Your task to perform on an android device: empty trash in the gmail app Image 0: 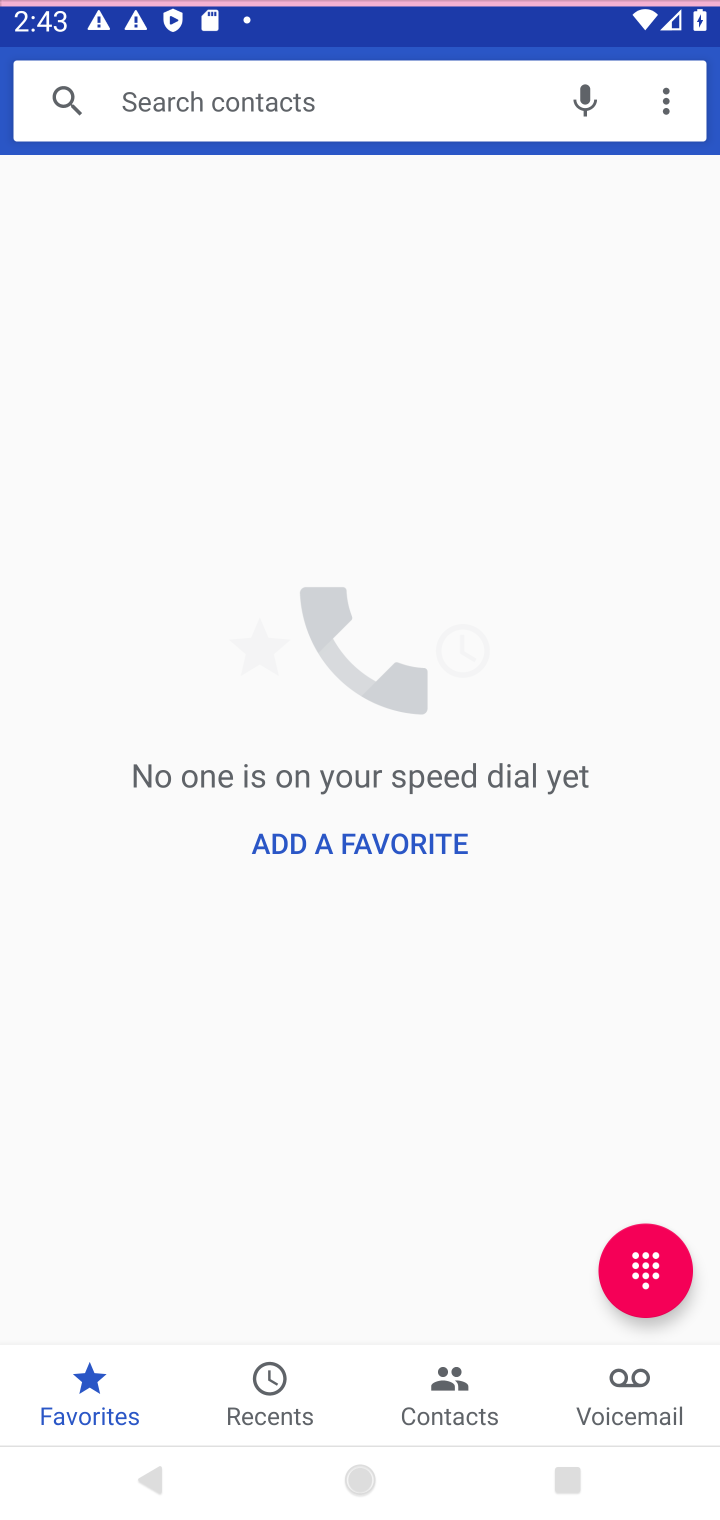
Step 0: press back button
Your task to perform on an android device: empty trash in the gmail app Image 1: 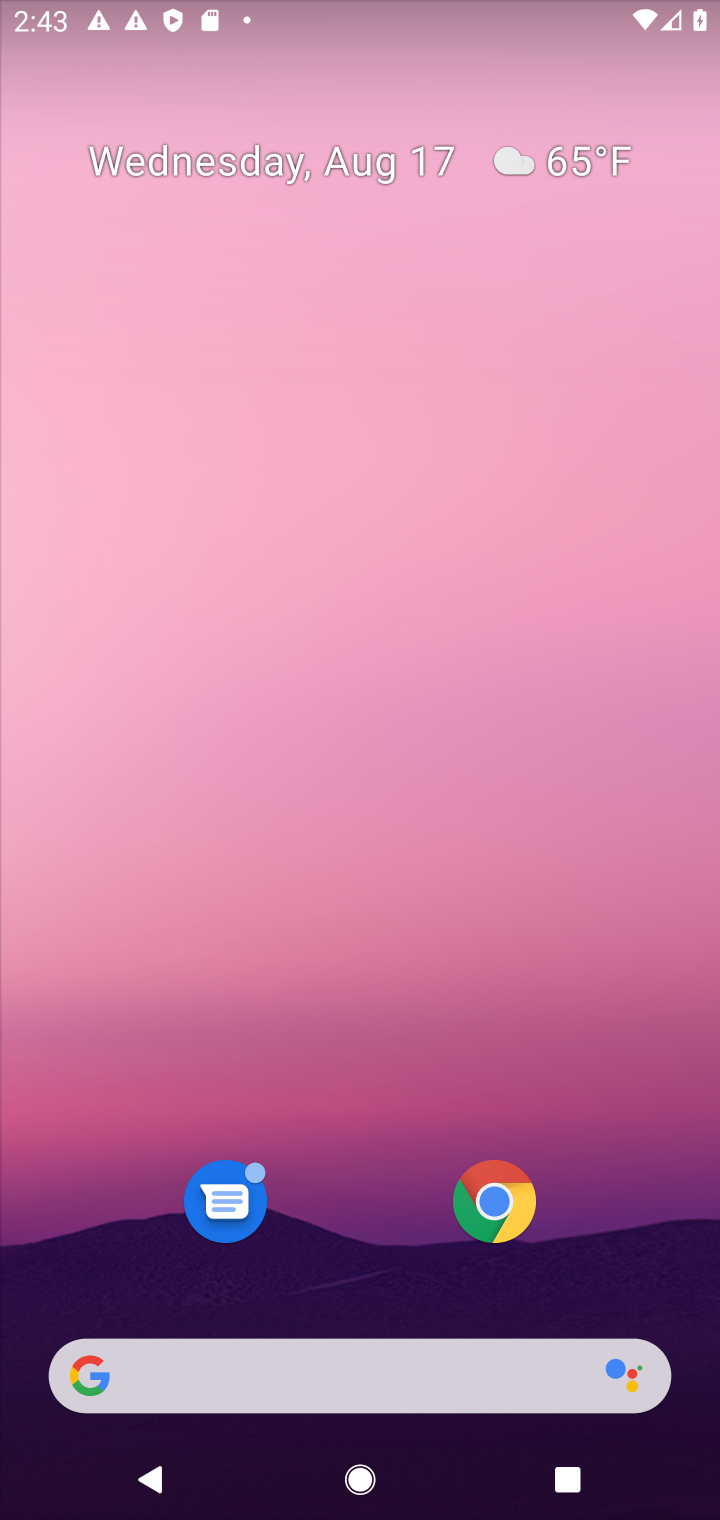
Step 1: press back button
Your task to perform on an android device: empty trash in the gmail app Image 2: 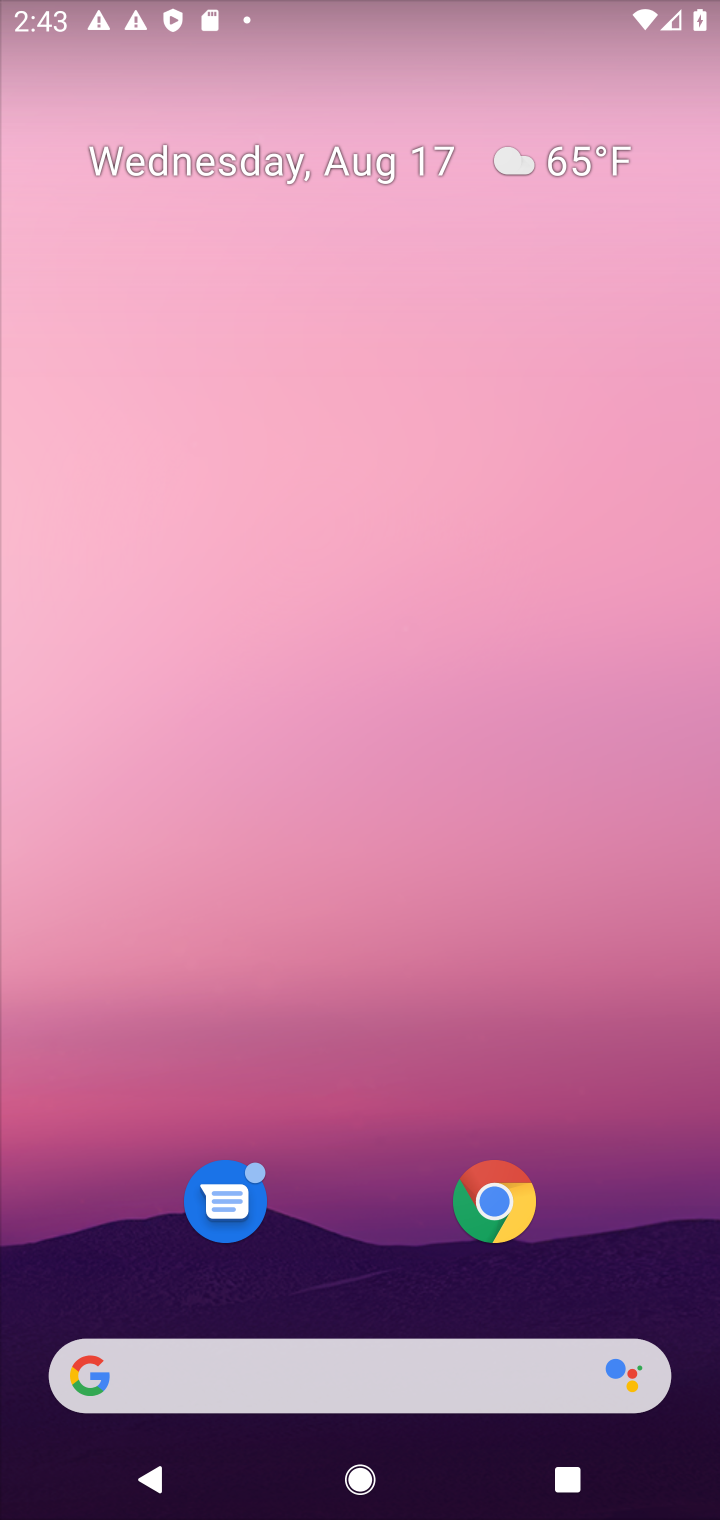
Step 2: drag from (437, 734) to (491, 8)
Your task to perform on an android device: empty trash in the gmail app Image 3: 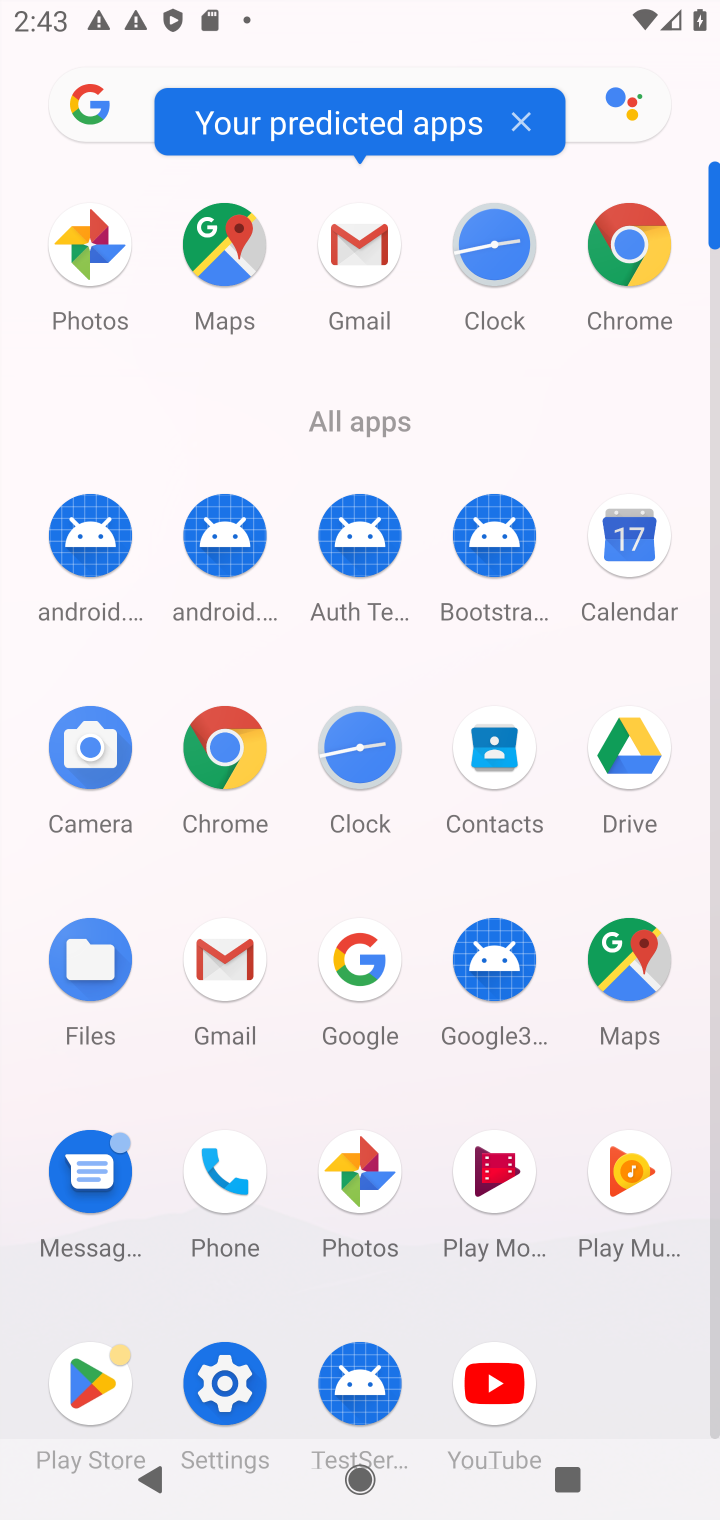
Step 3: click (384, 256)
Your task to perform on an android device: empty trash in the gmail app Image 4: 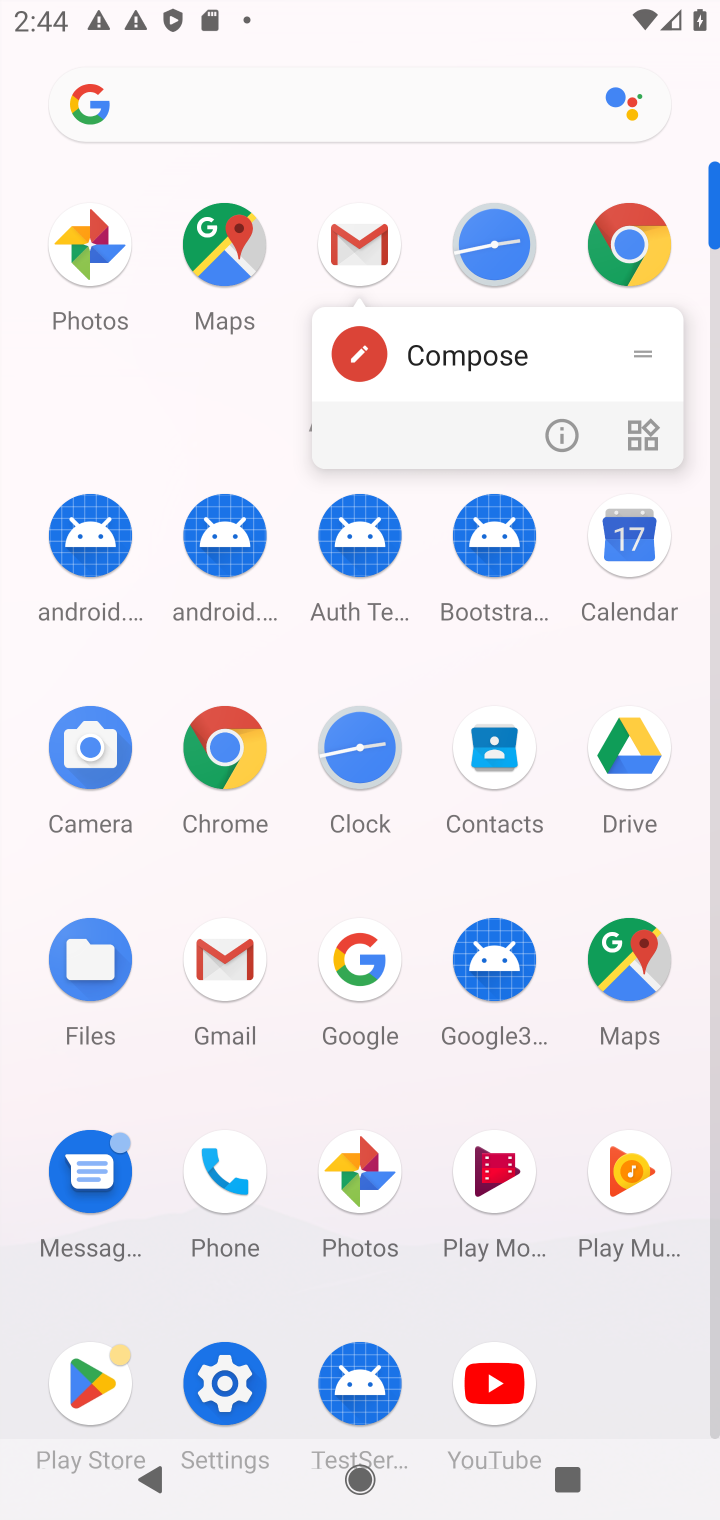
Step 4: click (350, 234)
Your task to perform on an android device: empty trash in the gmail app Image 5: 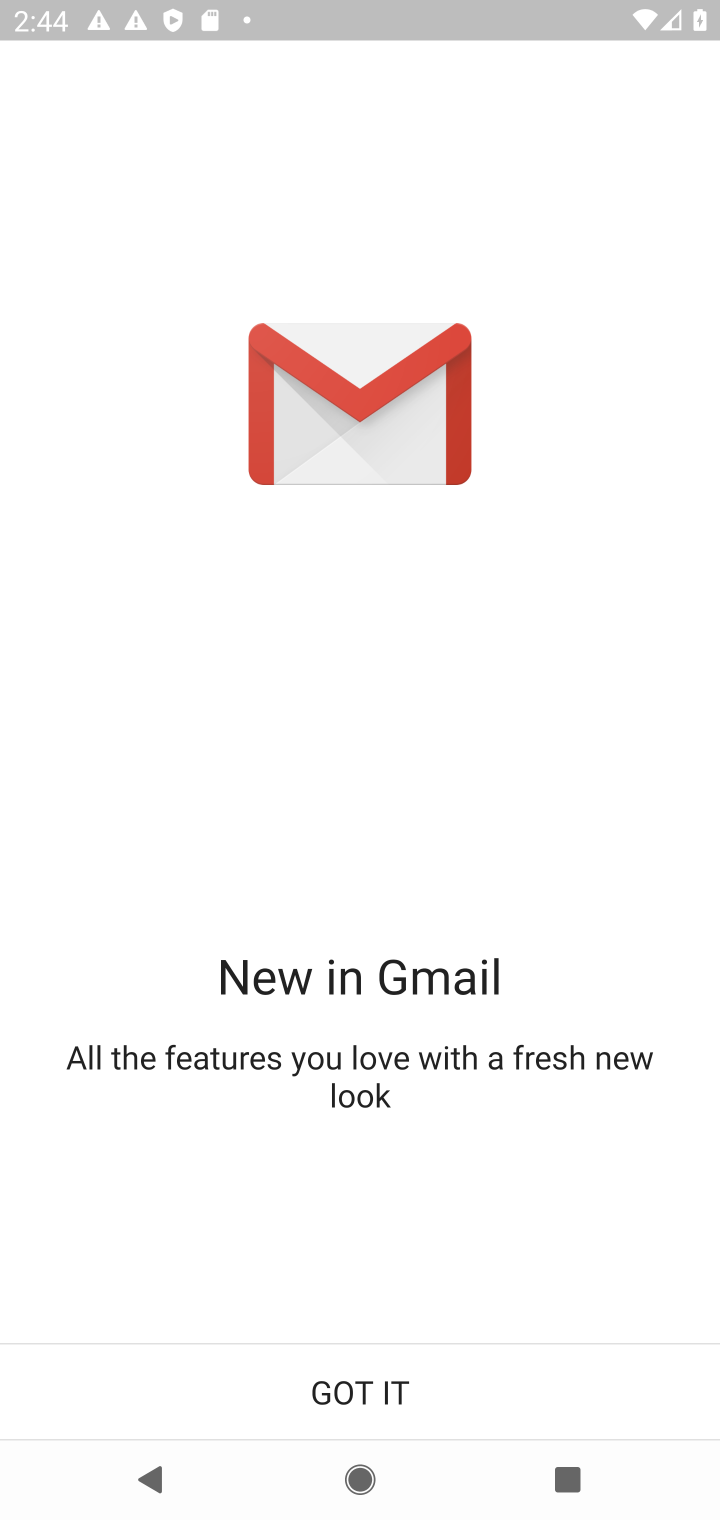
Step 5: click (312, 1365)
Your task to perform on an android device: empty trash in the gmail app Image 6: 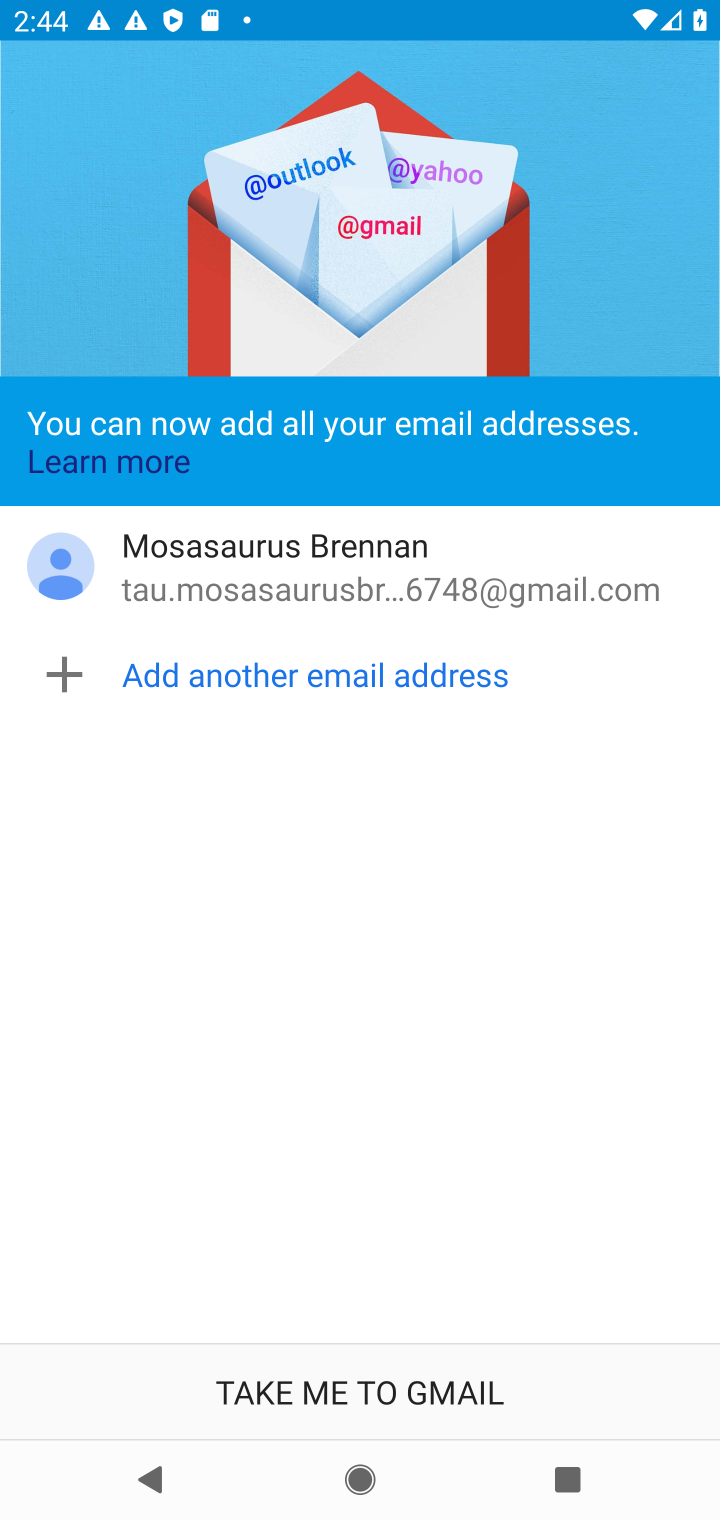
Step 6: click (345, 1386)
Your task to perform on an android device: empty trash in the gmail app Image 7: 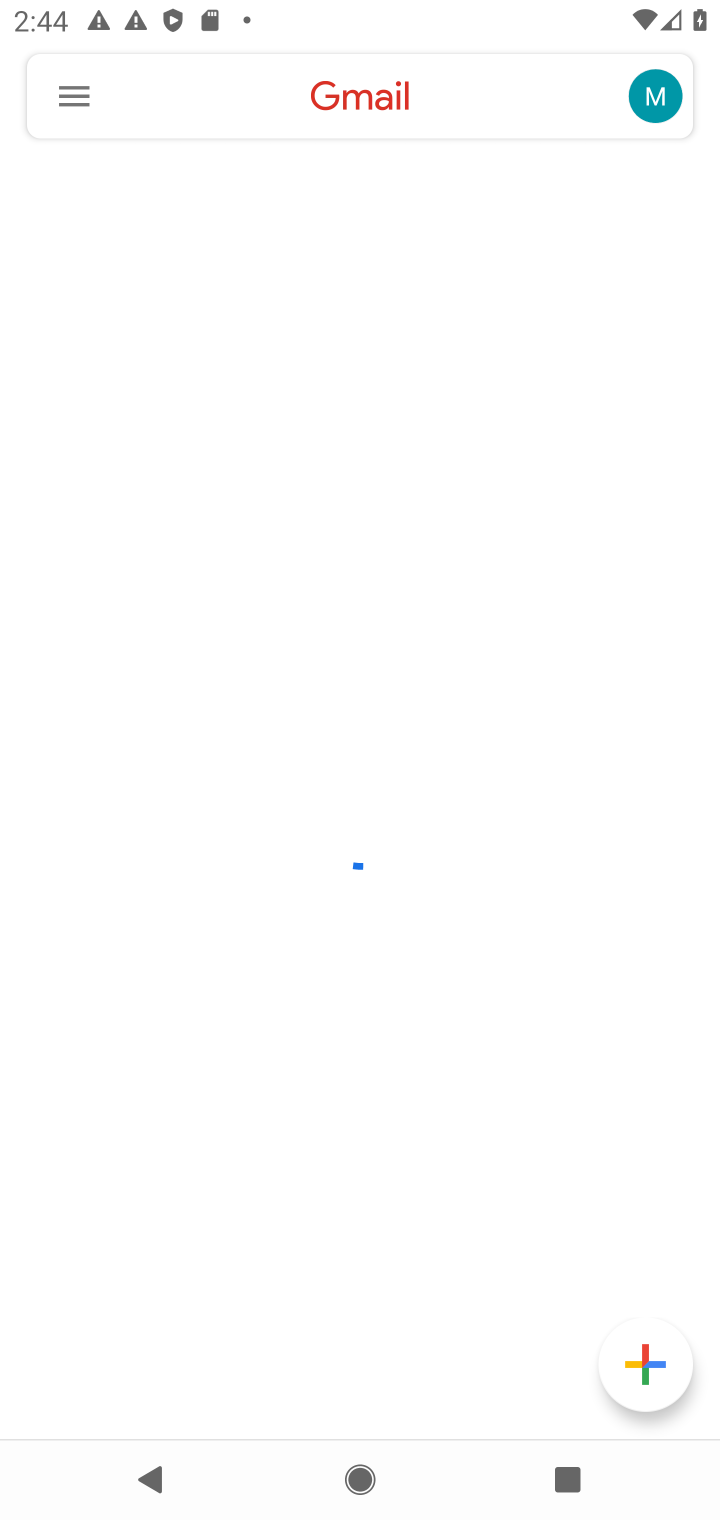
Step 7: click (56, 83)
Your task to perform on an android device: empty trash in the gmail app Image 8: 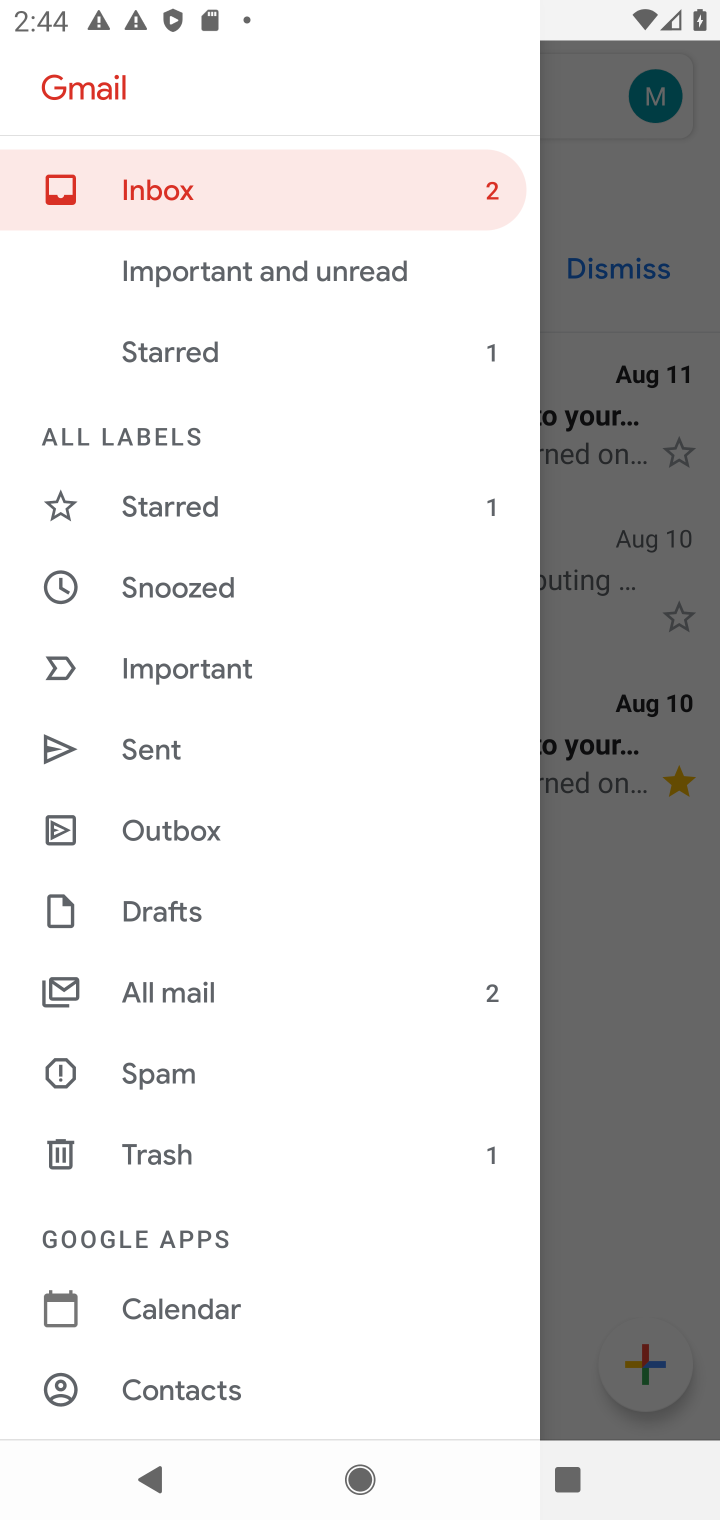
Step 8: click (217, 1155)
Your task to perform on an android device: empty trash in the gmail app Image 9: 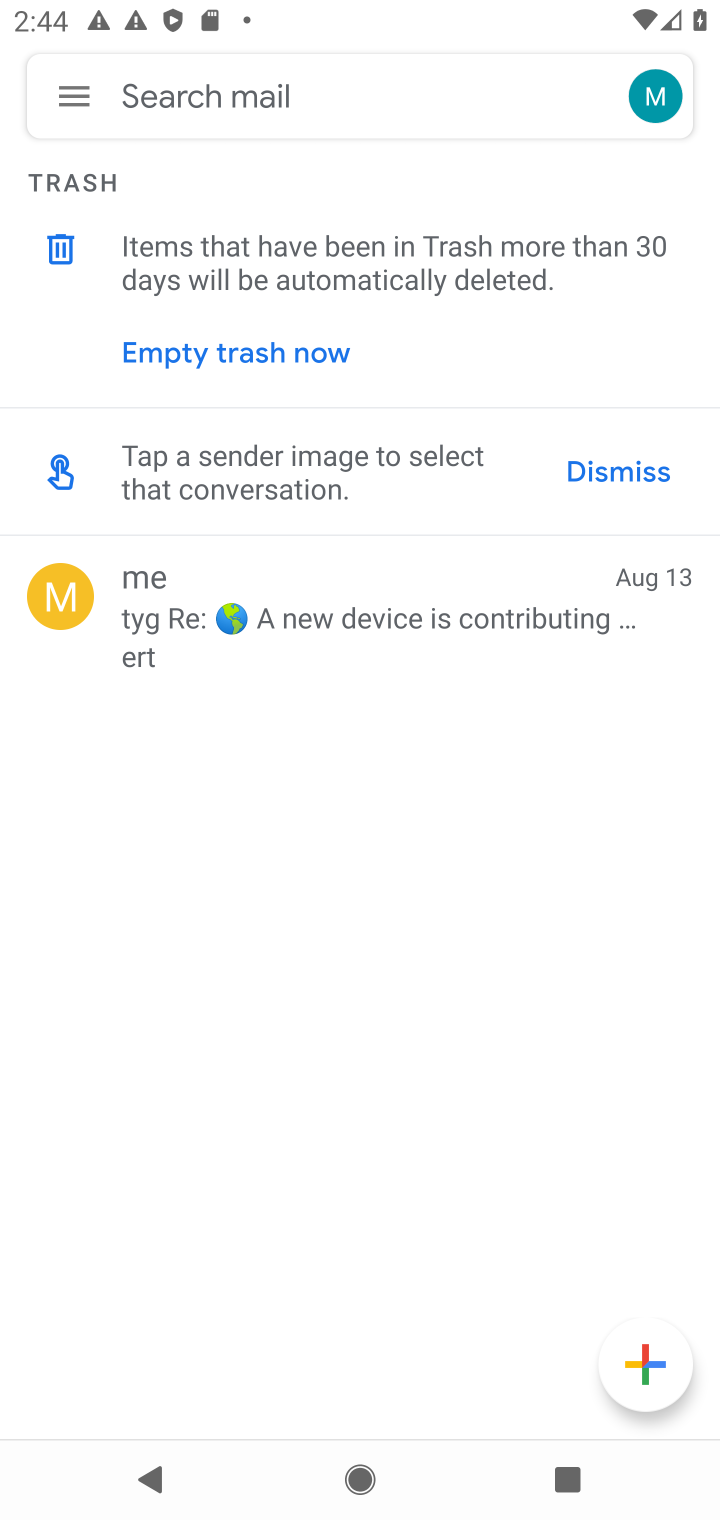
Step 9: click (290, 341)
Your task to perform on an android device: empty trash in the gmail app Image 10: 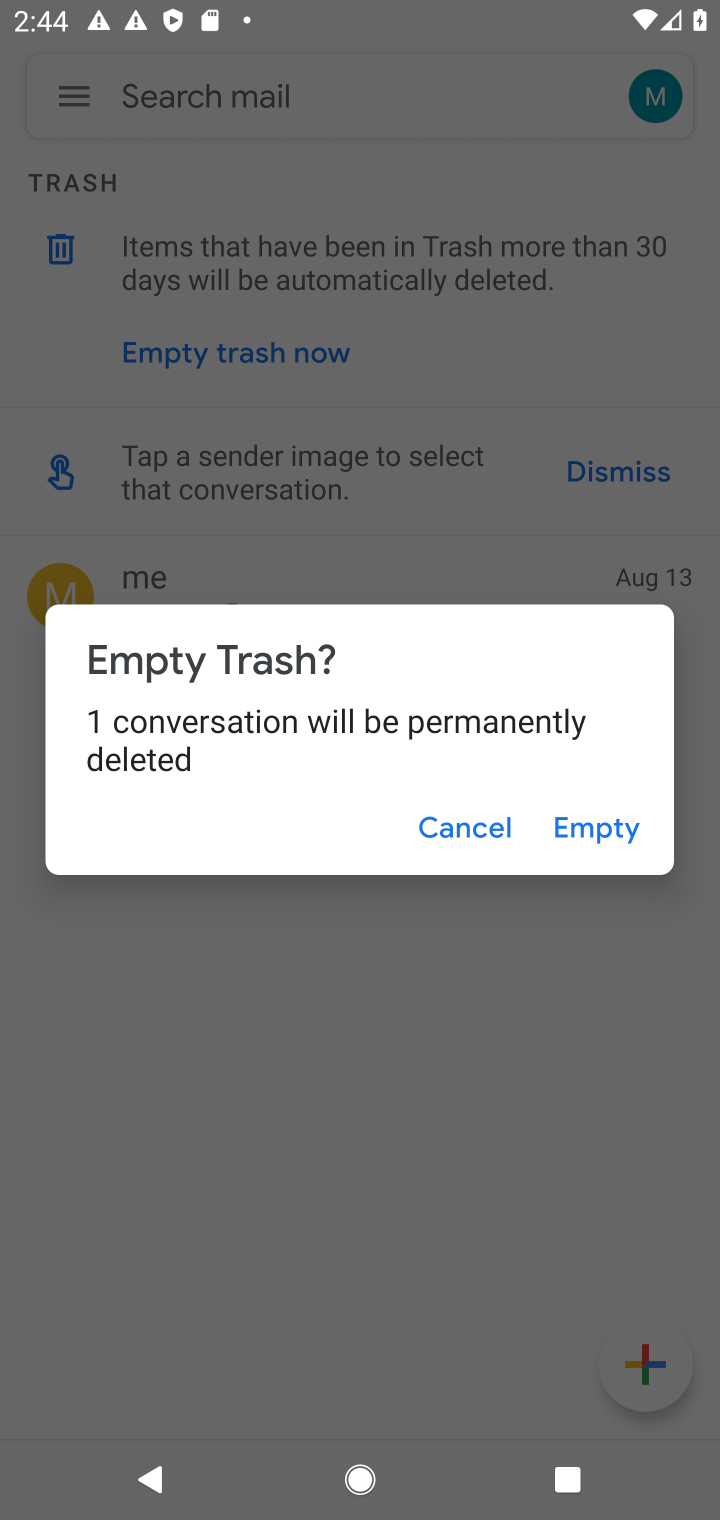
Step 10: click (582, 835)
Your task to perform on an android device: empty trash in the gmail app Image 11: 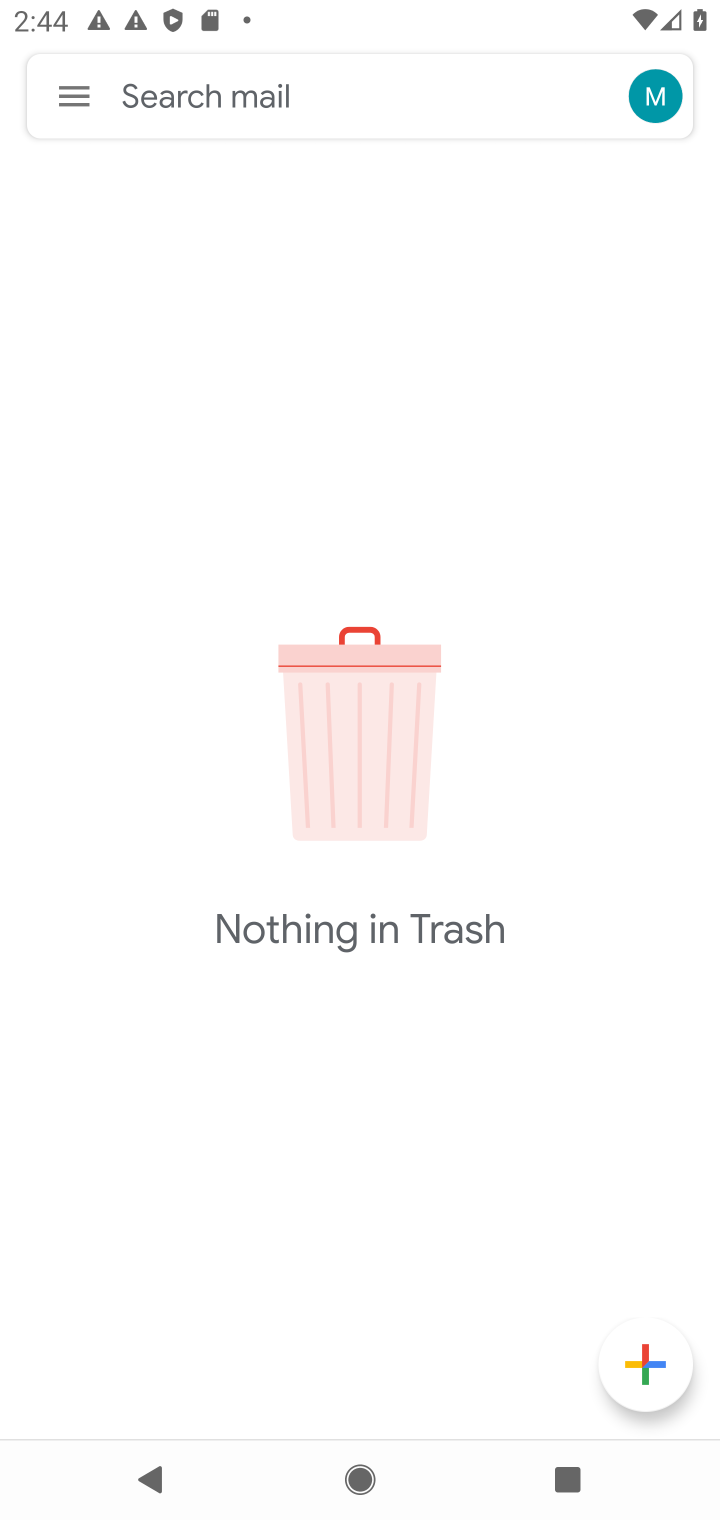
Step 11: task complete